Your task to perform on an android device: stop showing notifications on the lock screen Image 0: 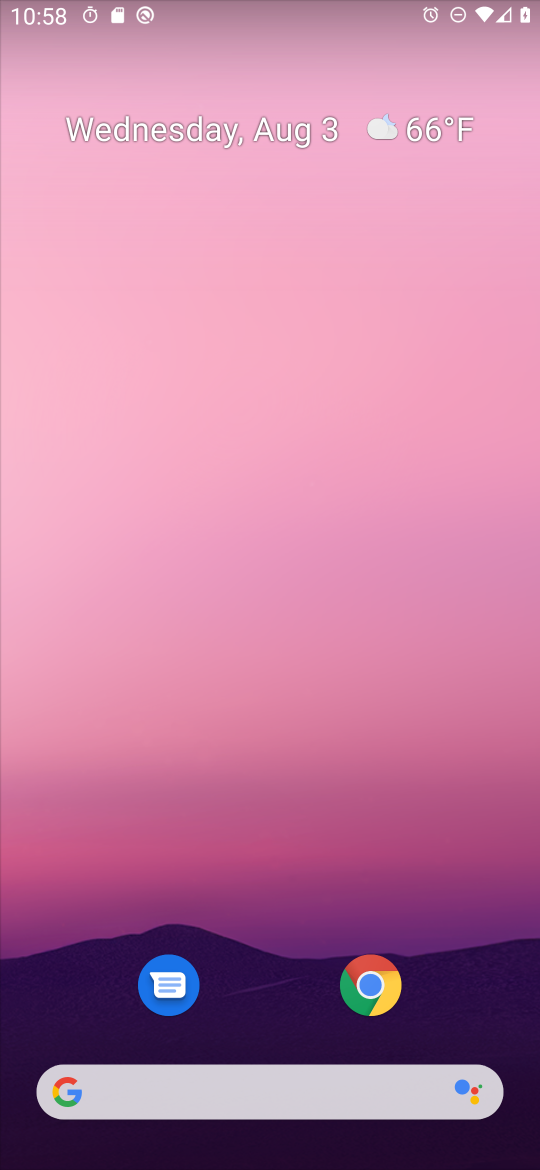
Step 0: drag from (254, 637) to (282, 257)
Your task to perform on an android device: stop showing notifications on the lock screen Image 1: 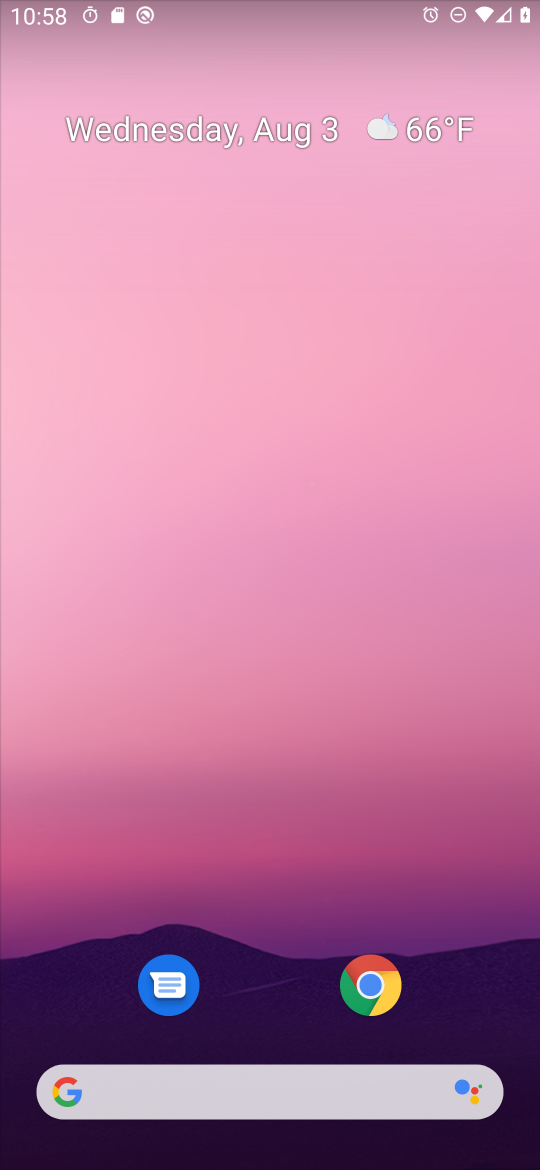
Step 1: drag from (291, 841) to (291, 183)
Your task to perform on an android device: stop showing notifications on the lock screen Image 2: 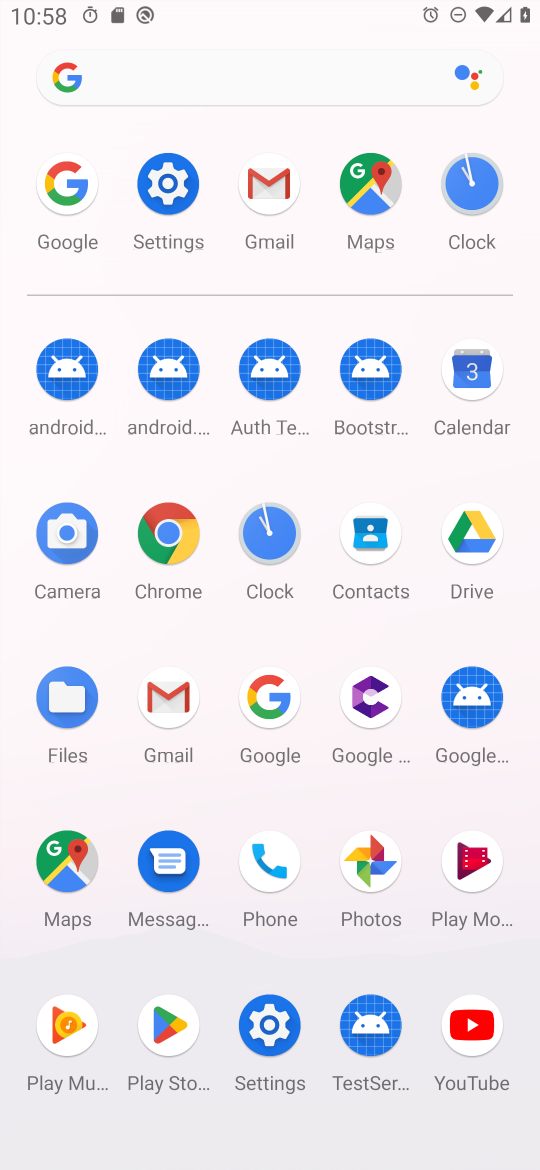
Step 2: click (175, 181)
Your task to perform on an android device: stop showing notifications on the lock screen Image 3: 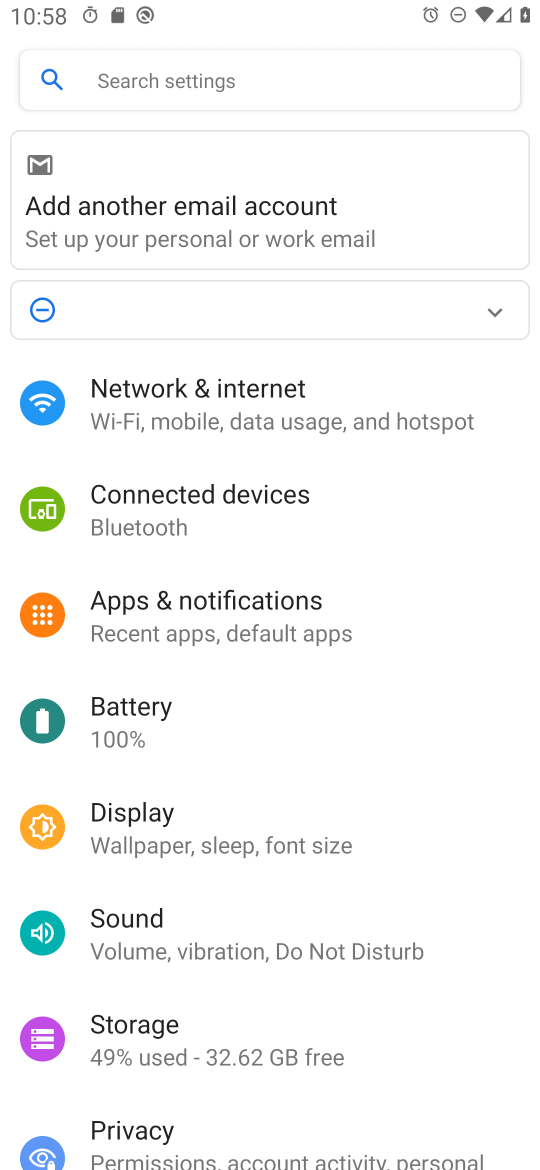
Step 3: click (277, 600)
Your task to perform on an android device: stop showing notifications on the lock screen Image 4: 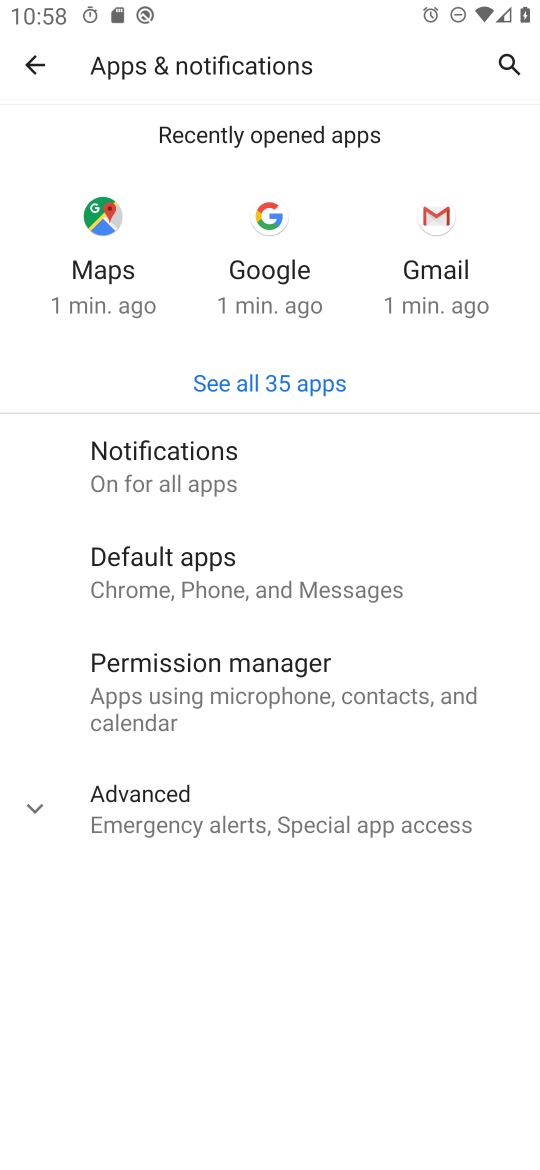
Step 4: click (271, 486)
Your task to perform on an android device: stop showing notifications on the lock screen Image 5: 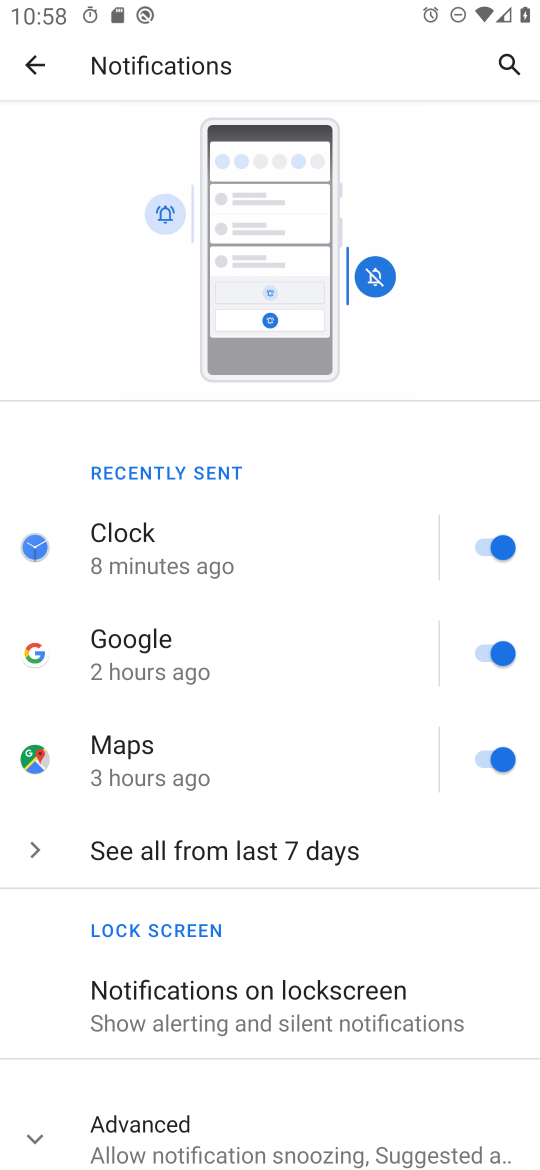
Step 5: click (303, 973)
Your task to perform on an android device: stop showing notifications on the lock screen Image 6: 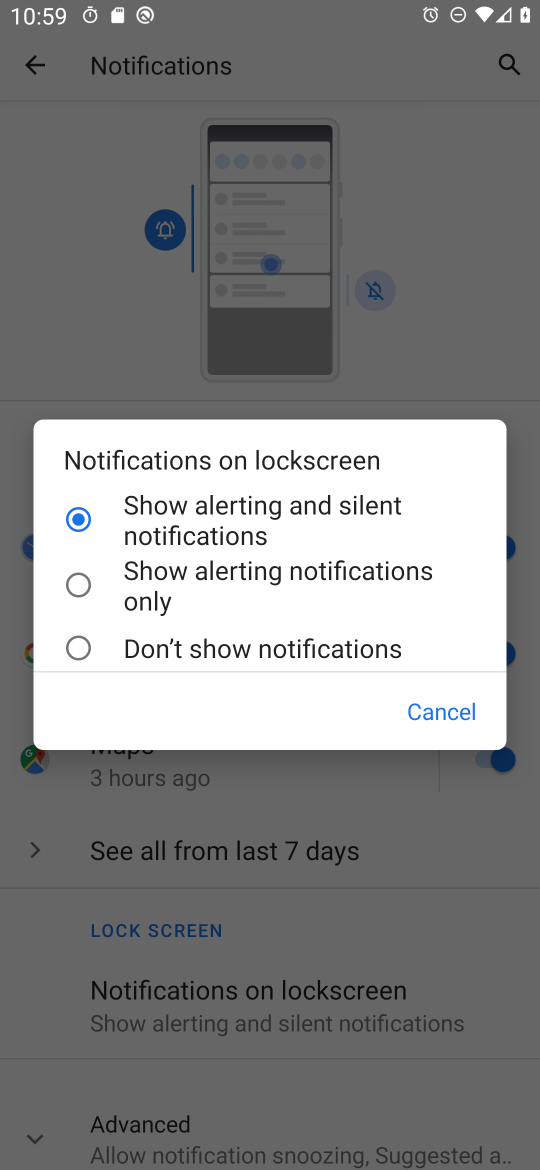
Step 6: click (179, 662)
Your task to perform on an android device: stop showing notifications on the lock screen Image 7: 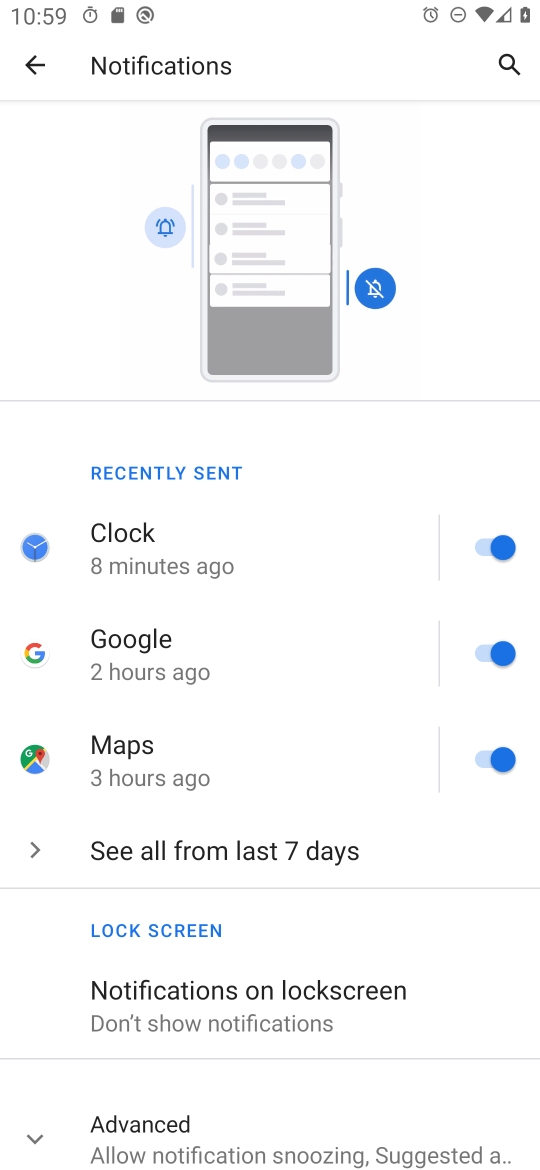
Step 7: task complete